Your task to perform on an android device: turn off translation in the chrome app Image 0: 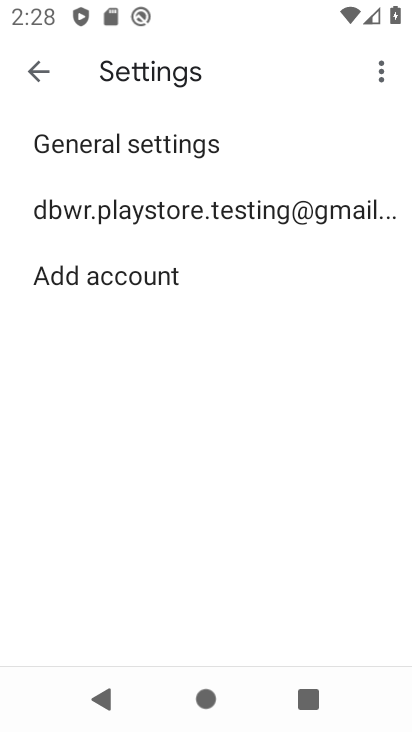
Step 0: press home button
Your task to perform on an android device: turn off translation in the chrome app Image 1: 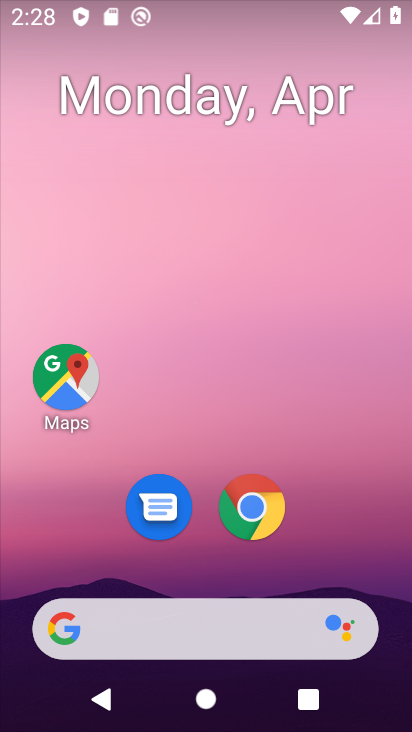
Step 1: click (251, 508)
Your task to perform on an android device: turn off translation in the chrome app Image 2: 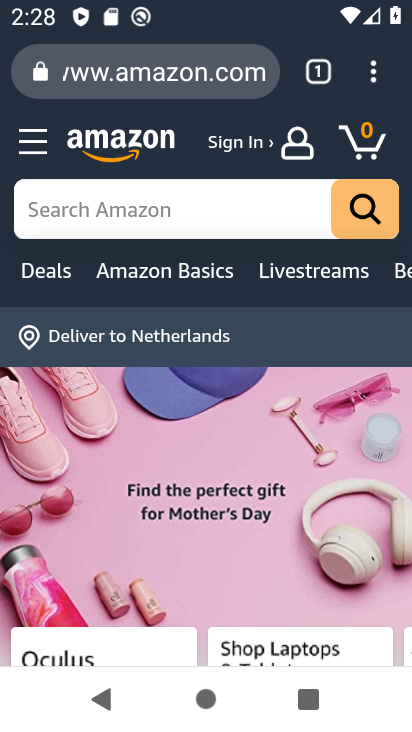
Step 2: click (370, 80)
Your task to perform on an android device: turn off translation in the chrome app Image 3: 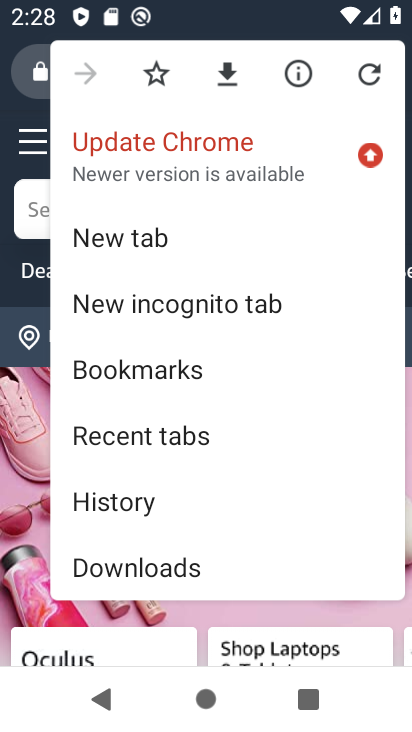
Step 3: drag from (212, 510) to (299, 217)
Your task to perform on an android device: turn off translation in the chrome app Image 4: 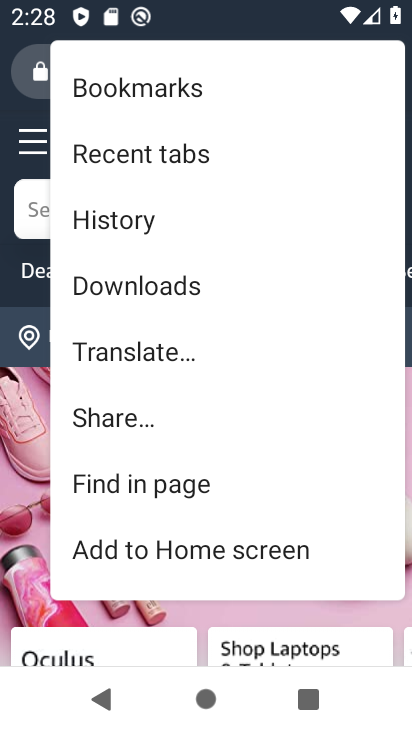
Step 4: drag from (320, 535) to (284, 151)
Your task to perform on an android device: turn off translation in the chrome app Image 5: 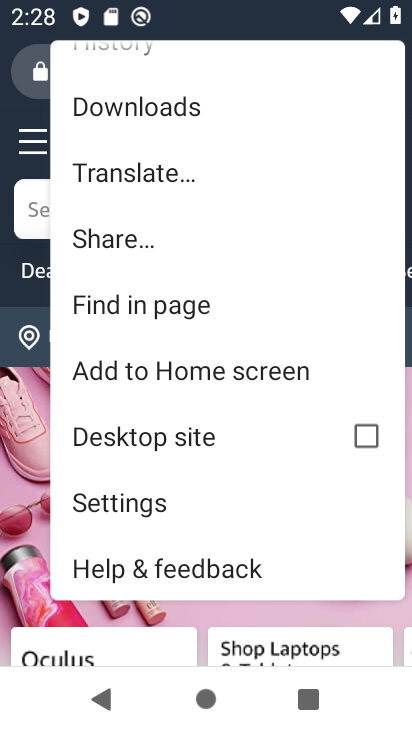
Step 5: click (118, 500)
Your task to perform on an android device: turn off translation in the chrome app Image 6: 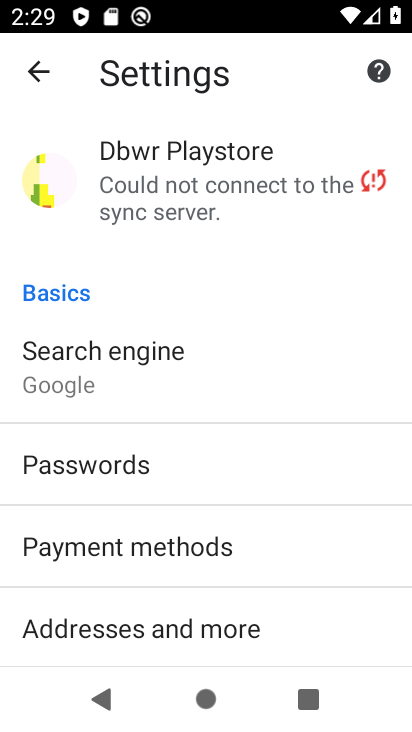
Step 6: drag from (310, 637) to (273, 198)
Your task to perform on an android device: turn off translation in the chrome app Image 7: 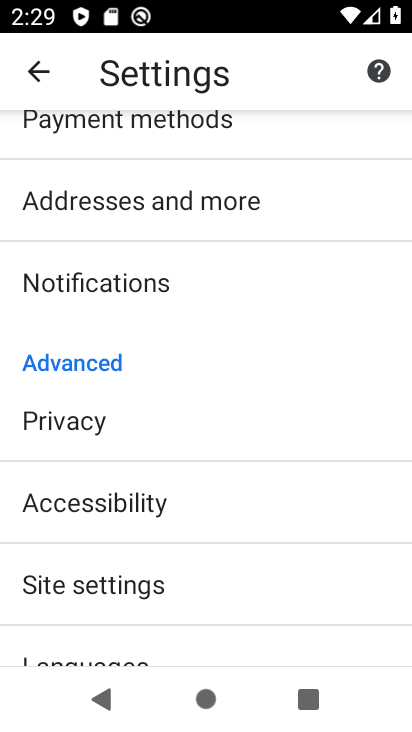
Step 7: drag from (232, 601) to (245, 271)
Your task to perform on an android device: turn off translation in the chrome app Image 8: 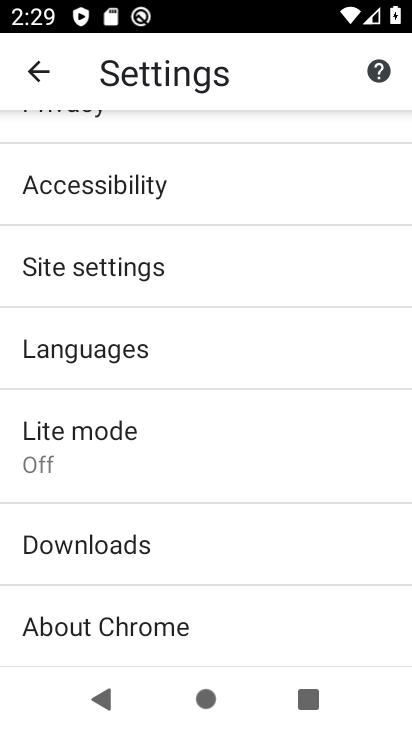
Step 8: click (92, 356)
Your task to perform on an android device: turn off translation in the chrome app Image 9: 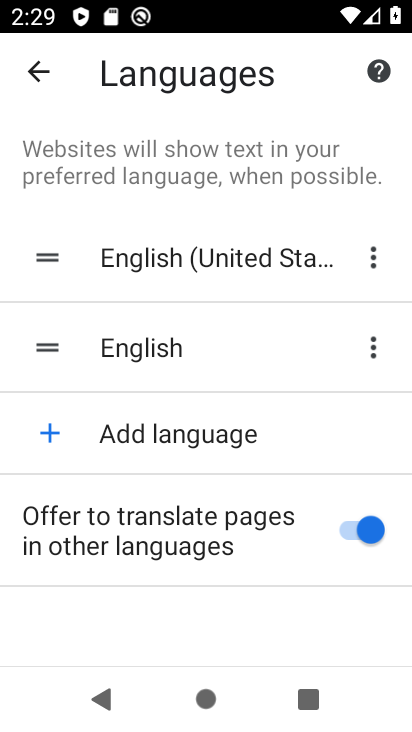
Step 9: click (343, 526)
Your task to perform on an android device: turn off translation in the chrome app Image 10: 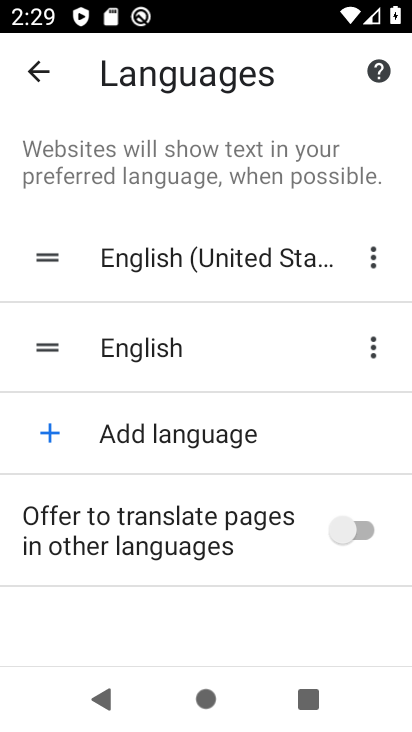
Step 10: task complete